Your task to perform on an android device: read, delete, or share a saved page in the chrome app Image 0: 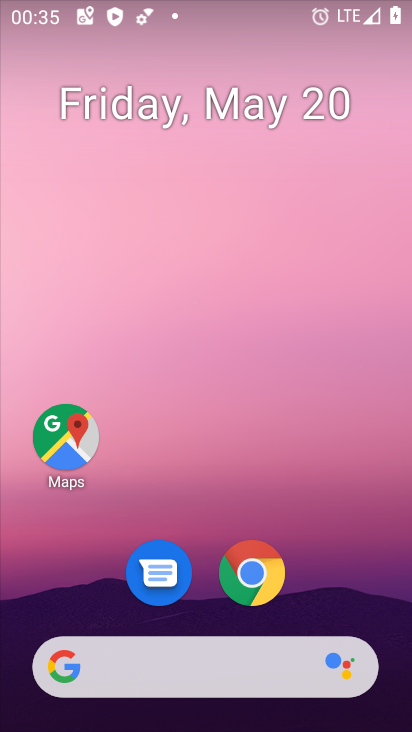
Step 0: click (235, 582)
Your task to perform on an android device: read, delete, or share a saved page in the chrome app Image 1: 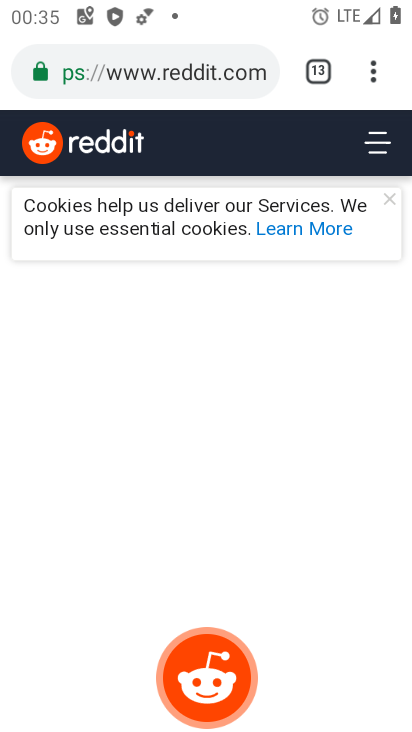
Step 1: click (360, 64)
Your task to perform on an android device: read, delete, or share a saved page in the chrome app Image 2: 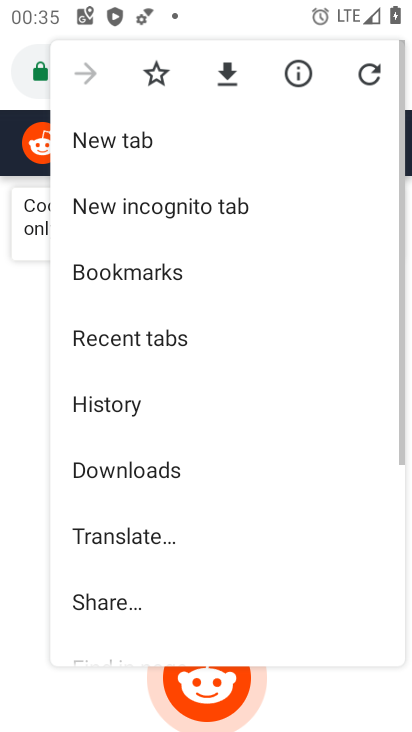
Step 2: click (142, 471)
Your task to perform on an android device: read, delete, or share a saved page in the chrome app Image 3: 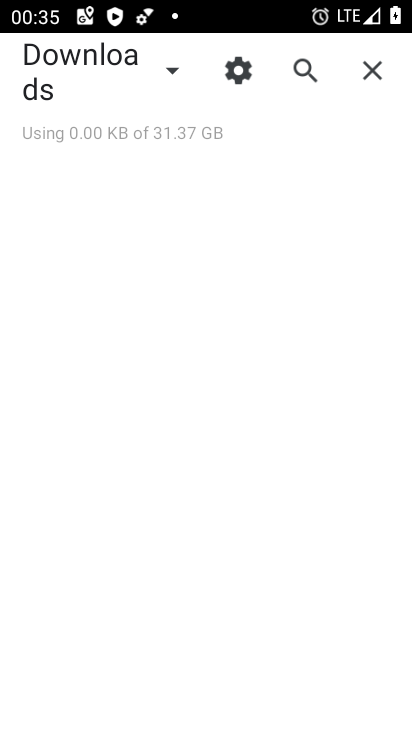
Step 3: click (139, 89)
Your task to perform on an android device: read, delete, or share a saved page in the chrome app Image 4: 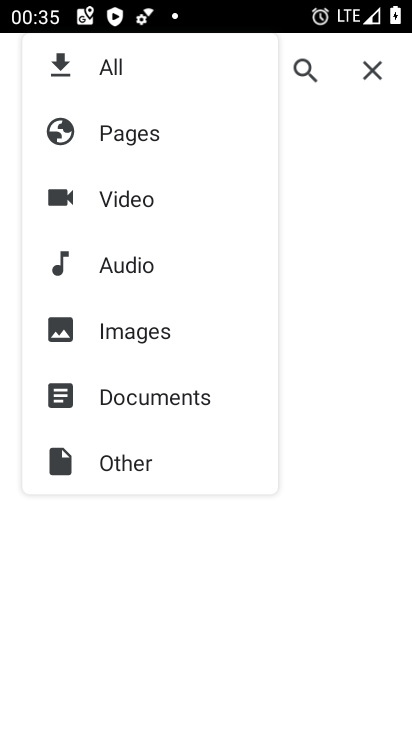
Step 4: click (125, 144)
Your task to perform on an android device: read, delete, or share a saved page in the chrome app Image 5: 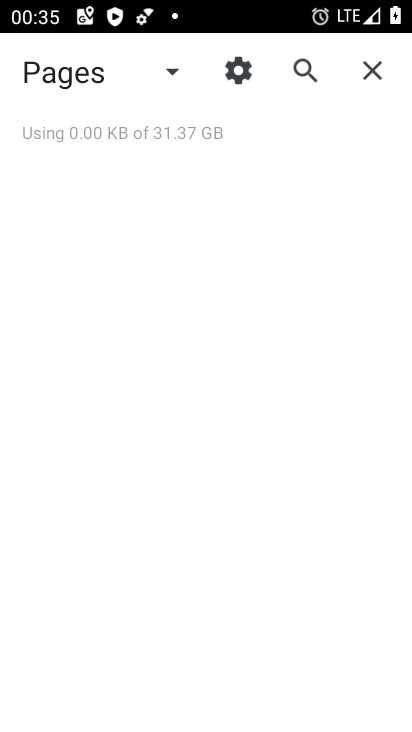
Step 5: task complete